Your task to perform on an android device: change notification settings in the gmail app Image 0: 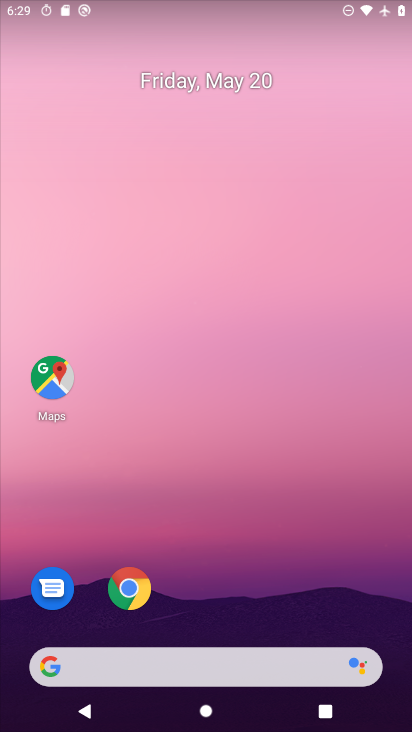
Step 0: drag from (197, 622) to (193, 245)
Your task to perform on an android device: change notification settings in the gmail app Image 1: 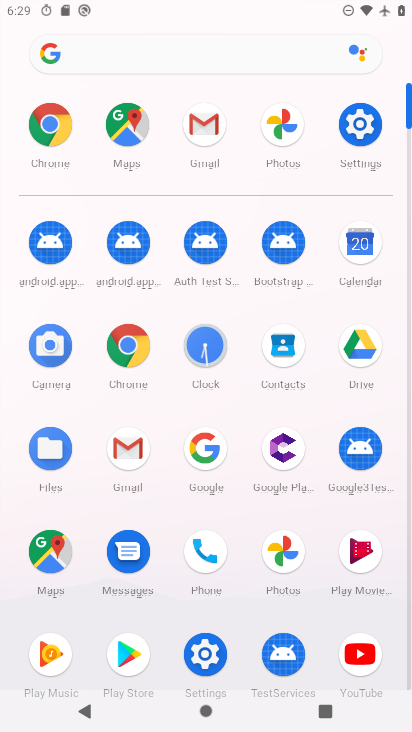
Step 1: click (203, 127)
Your task to perform on an android device: change notification settings in the gmail app Image 2: 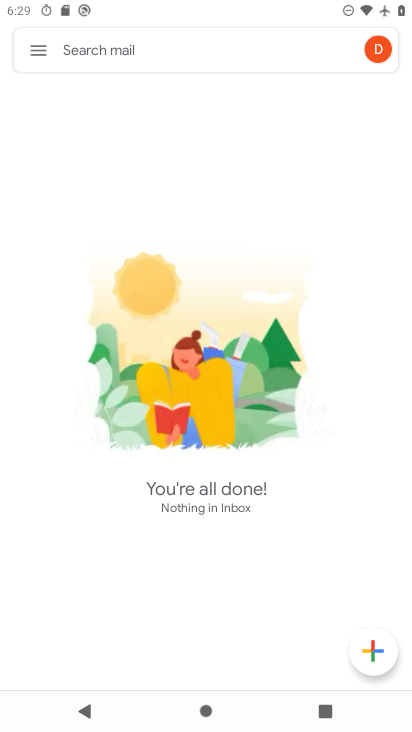
Step 2: click (34, 47)
Your task to perform on an android device: change notification settings in the gmail app Image 3: 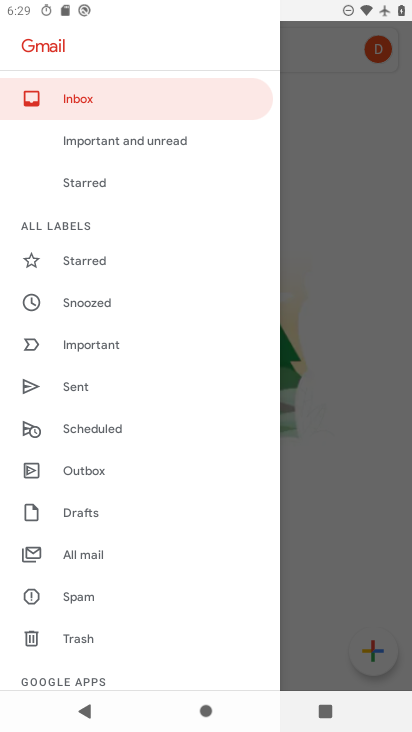
Step 3: drag from (99, 657) to (142, 392)
Your task to perform on an android device: change notification settings in the gmail app Image 4: 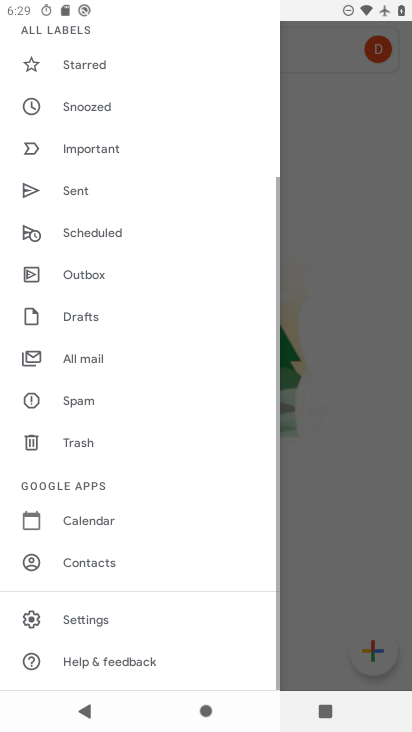
Step 4: click (103, 620)
Your task to perform on an android device: change notification settings in the gmail app Image 5: 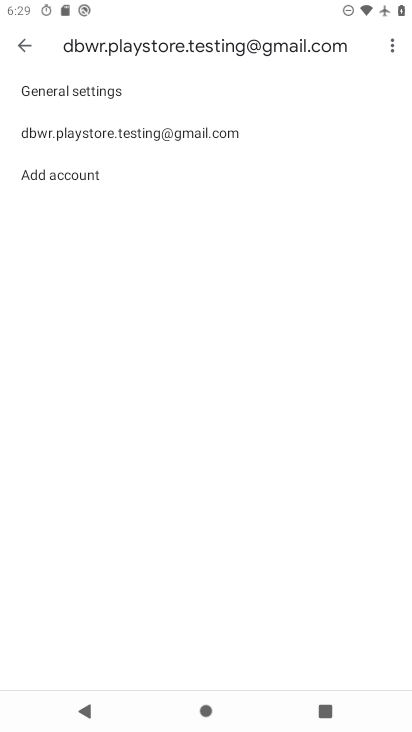
Step 5: click (170, 146)
Your task to perform on an android device: change notification settings in the gmail app Image 6: 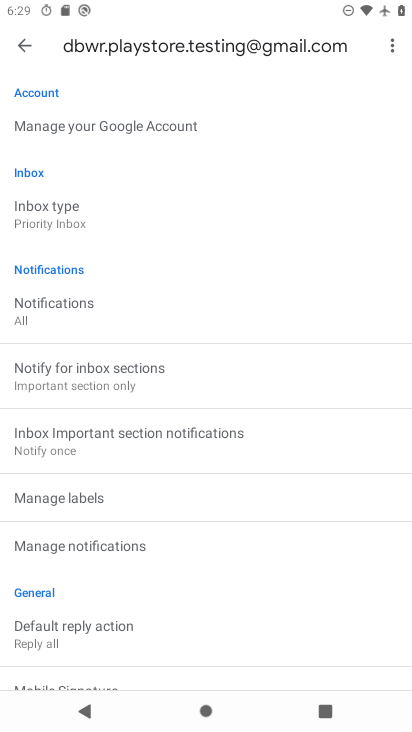
Step 6: click (52, 300)
Your task to perform on an android device: change notification settings in the gmail app Image 7: 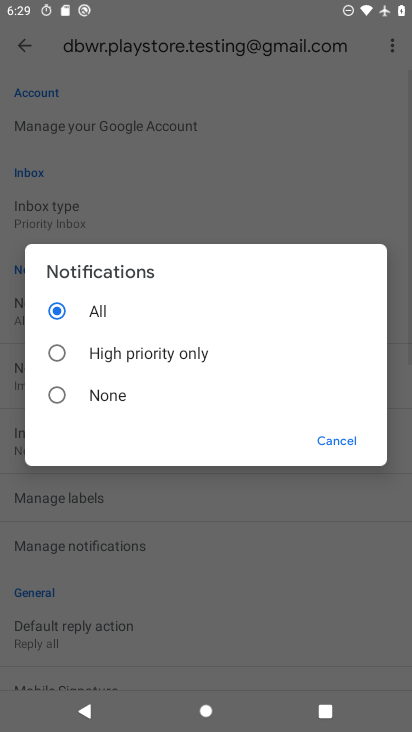
Step 7: click (58, 395)
Your task to perform on an android device: change notification settings in the gmail app Image 8: 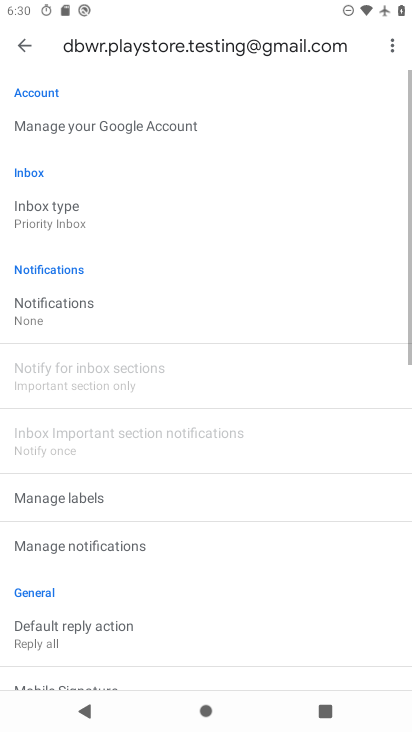
Step 8: task complete